Your task to perform on an android device: Open calendar and show me the second week of next month Image 0: 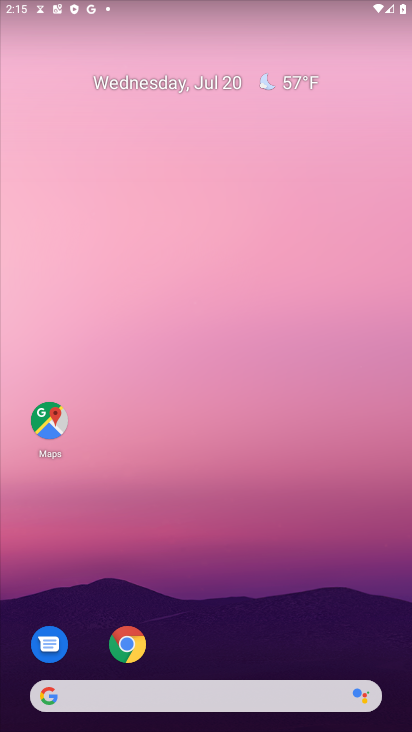
Step 0: press home button
Your task to perform on an android device: Open calendar and show me the second week of next month Image 1: 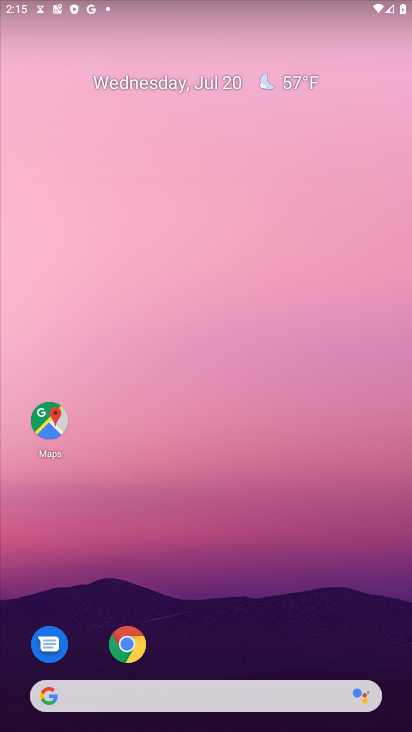
Step 1: drag from (219, 653) to (256, 40)
Your task to perform on an android device: Open calendar and show me the second week of next month Image 2: 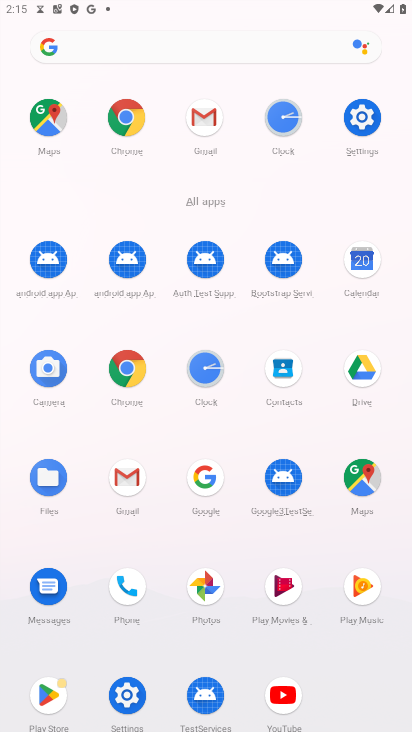
Step 2: click (359, 260)
Your task to perform on an android device: Open calendar and show me the second week of next month Image 3: 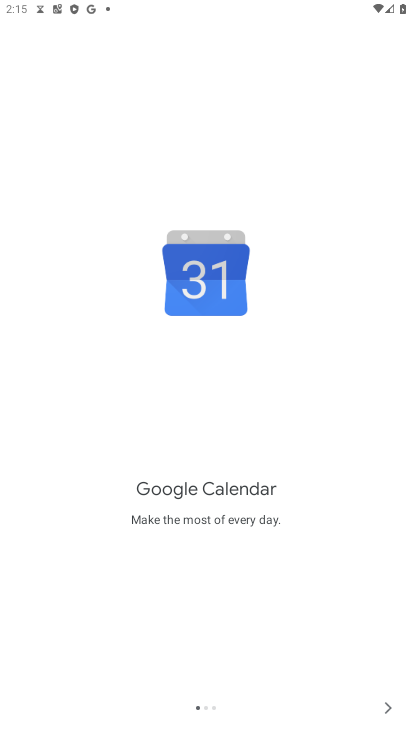
Step 3: click (378, 707)
Your task to perform on an android device: Open calendar and show me the second week of next month Image 4: 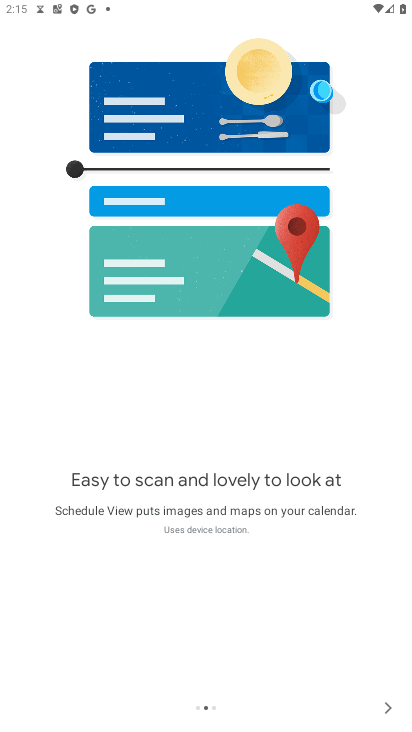
Step 4: click (387, 709)
Your task to perform on an android device: Open calendar and show me the second week of next month Image 5: 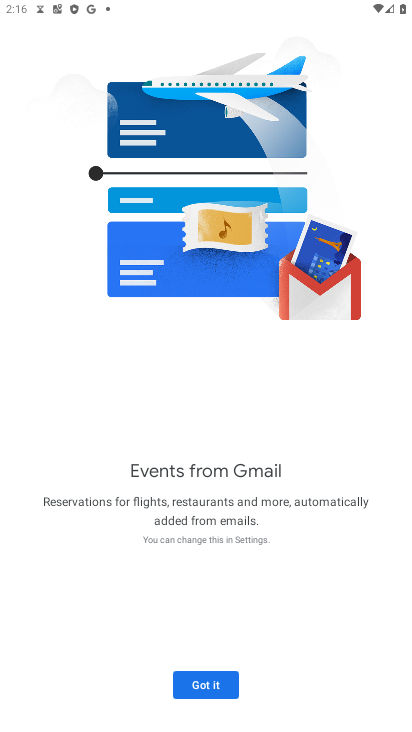
Step 5: click (198, 684)
Your task to perform on an android device: Open calendar and show me the second week of next month Image 6: 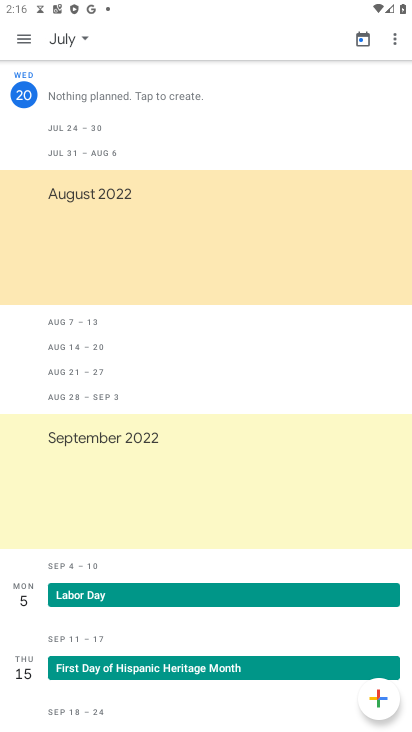
Step 6: click (80, 39)
Your task to perform on an android device: Open calendar and show me the second week of next month Image 7: 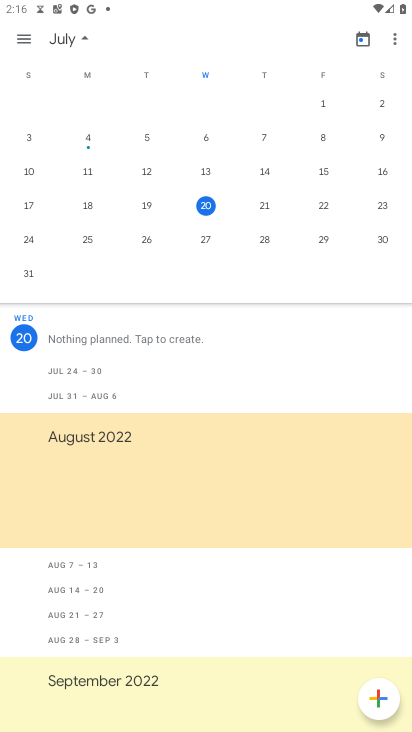
Step 7: drag from (349, 195) to (46, 187)
Your task to perform on an android device: Open calendar and show me the second week of next month Image 8: 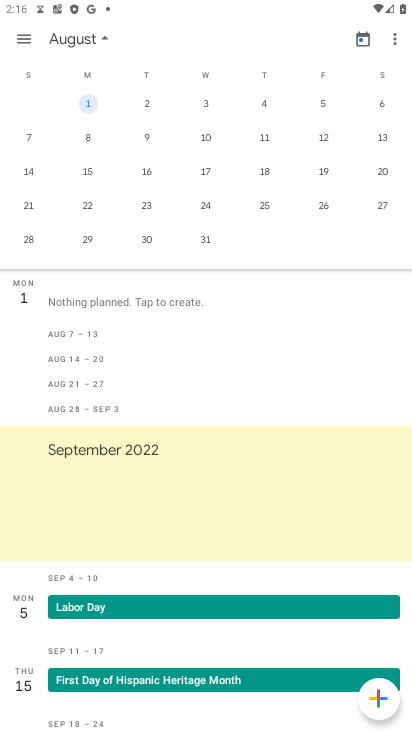
Step 8: click (89, 138)
Your task to perform on an android device: Open calendar and show me the second week of next month Image 9: 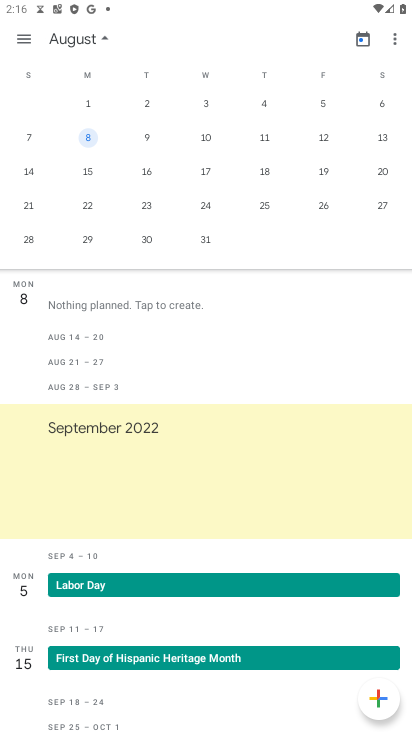
Step 9: click (145, 138)
Your task to perform on an android device: Open calendar and show me the second week of next month Image 10: 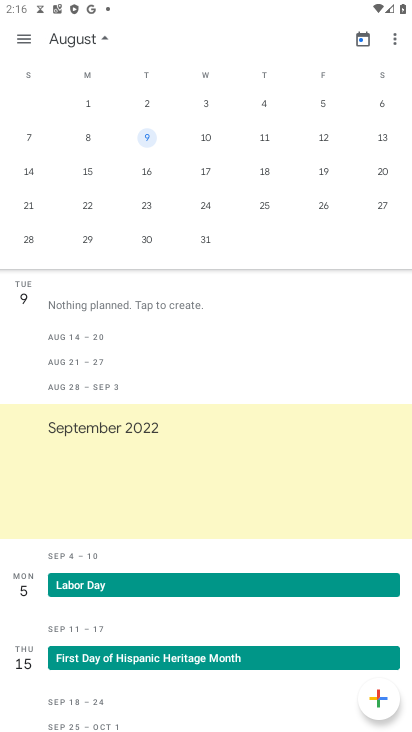
Step 10: click (201, 137)
Your task to perform on an android device: Open calendar and show me the second week of next month Image 11: 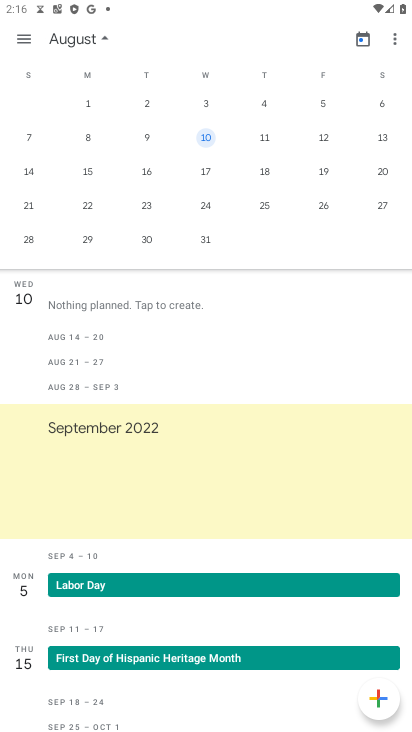
Step 11: click (268, 139)
Your task to perform on an android device: Open calendar and show me the second week of next month Image 12: 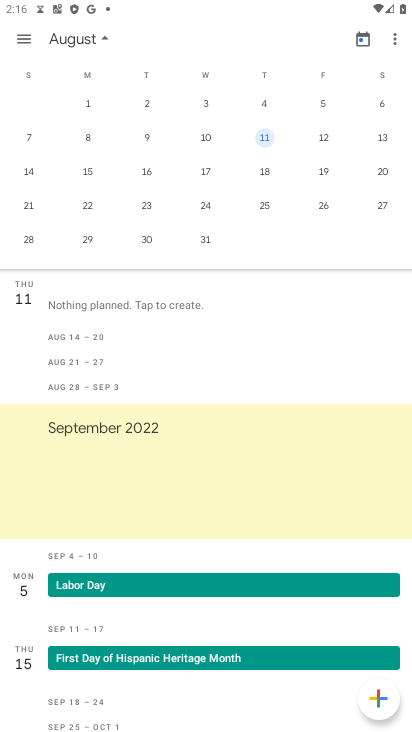
Step 12: click (330, 137)
Your task to perform on an android device: Open calendar and show me the second week of next month Image 13: 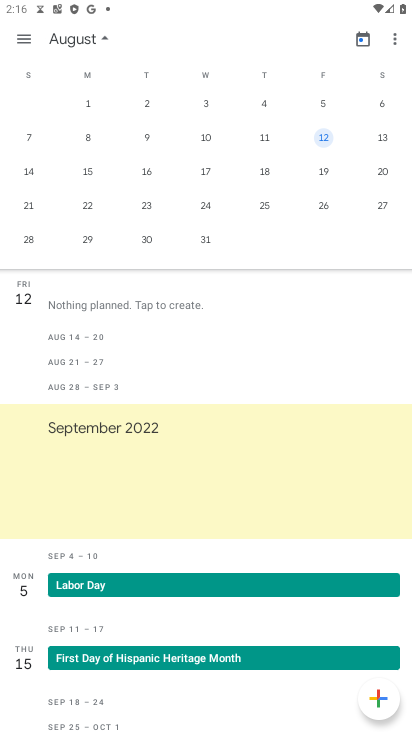
Step 13: click (379, 136)
Your task to perform on an android device: Open calendar and show me the second week of next month Image 14: 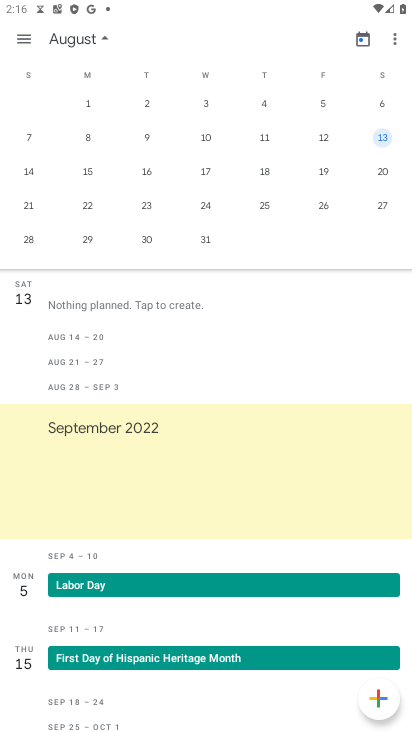
Step 14: click (29, 174)
Your task to perform on an android device: Open calendar and show me the second week of next month Image 15: 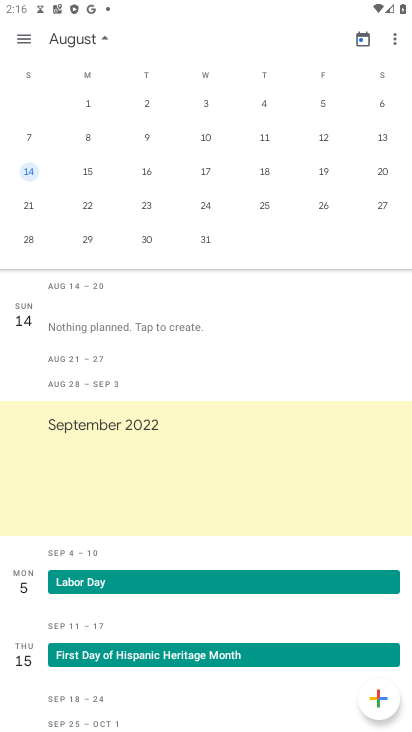
Step 15: task complete